Your task to perform on an android device: turn on showing notifications on the lock screen Image 0: 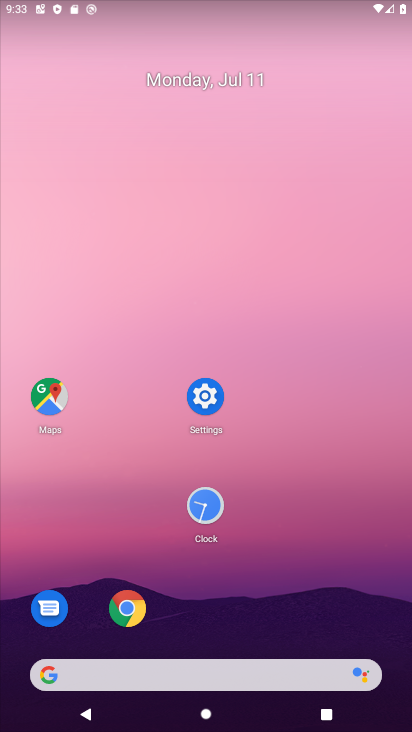
Step 0: click (214, 389)
Your task to perform on an android device: turn on showing notifications on the lock screen Image 1: 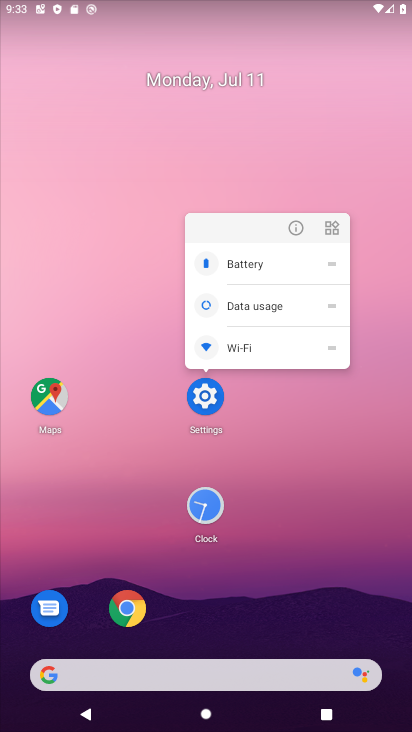
Step 1: click (213, 385)
Your task to perform on an android device: turn on showing notifications on the lock screen Image 2: 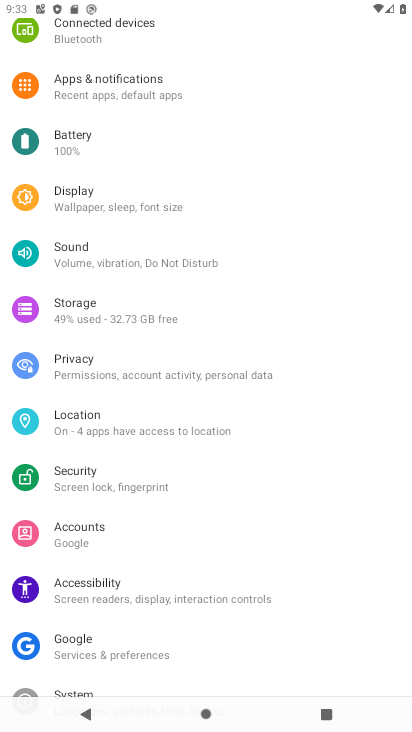
Step 2: click (121, 83)
Your task to perform on an android device: turn on showing notifications on the lock screen Image 3: 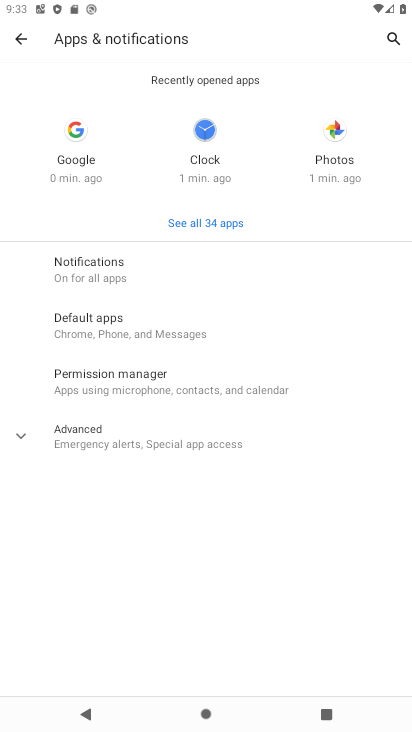
Step 3: click (56, 264)
Your task to perform on an android device: turn on showing notifications on the lock screen Image 4: 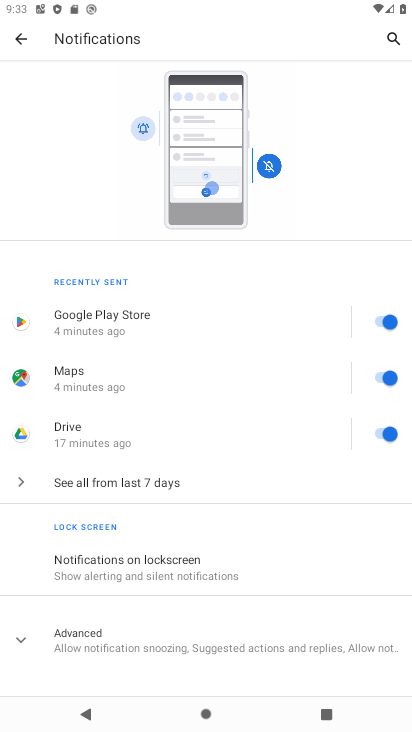
Step 4: click (142, 538)
Your task to perform on an android device: turn on showing notifications on the lock screen Image 5: 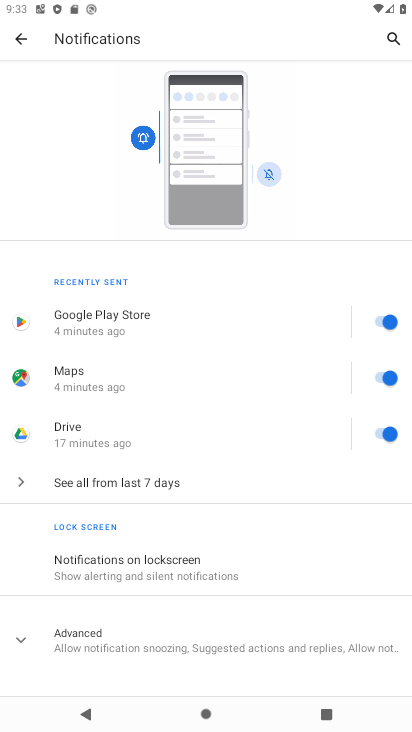
Step 5: click (106, 559)
Your task to perform on an android device: turn on showing notifications on the lock screen Image 6: 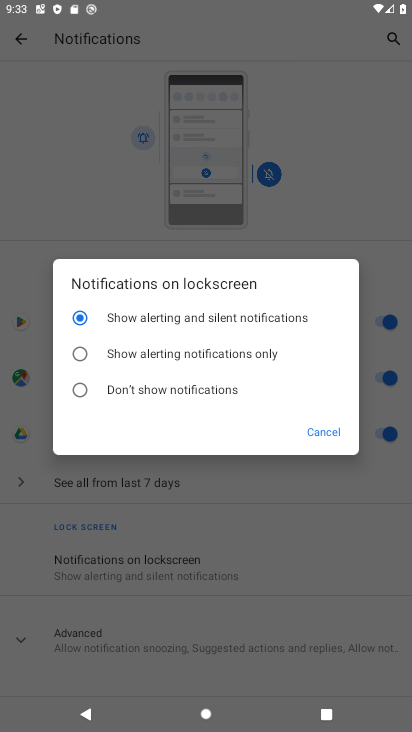
Step 6: click (76, 351)
Your task to perform on an android device: turn on showing notifications on the lock screen Image 7: 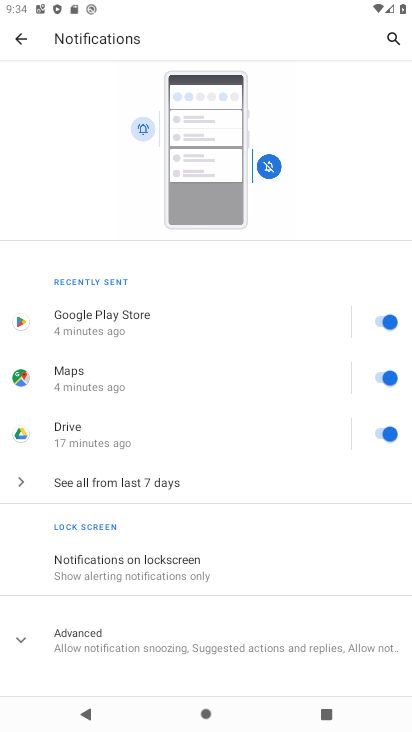
Step 7: click (142, 563)
Your task to perform on an android device: turn on showing notifications on the lock screen Image 8: 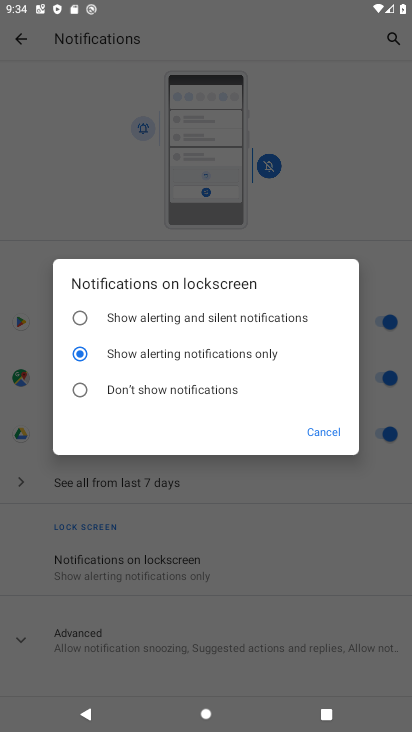
Step 8: click (80, 322)
Your task to perform on an android device: turn on showing notifications on the lock screen Image 9: 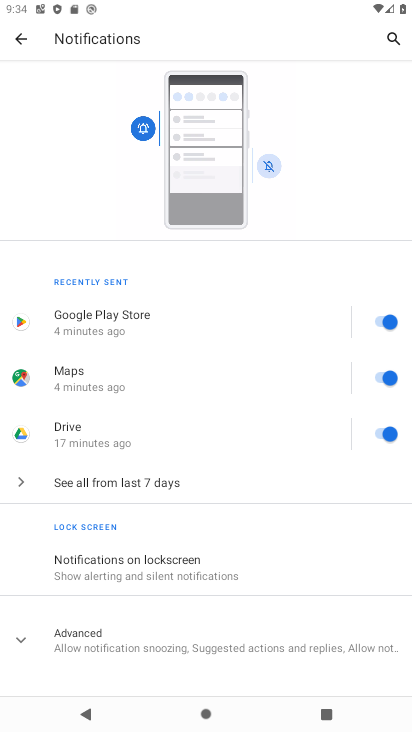
Step 9: task complete